Your task to perform on an android device: Go to privacy settings Image 0: 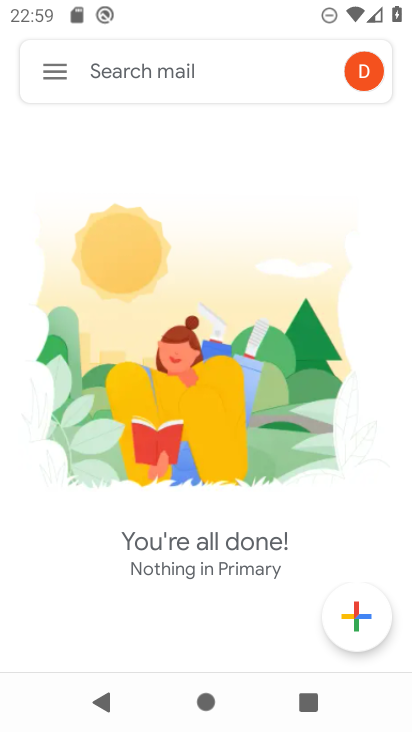
Step 0: press home button
Your task to perform on an android device: Go to privacy settings Image 1: 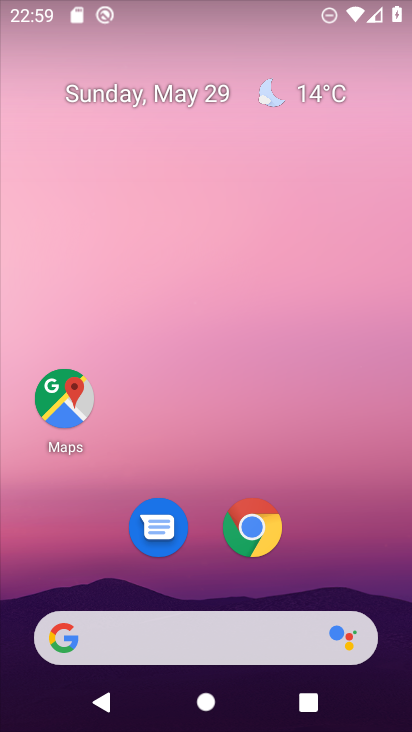
Step 1: drag from (214, 643) to (235, 68)
Your task to perform on an android device: Go to privacy settings Image 2: 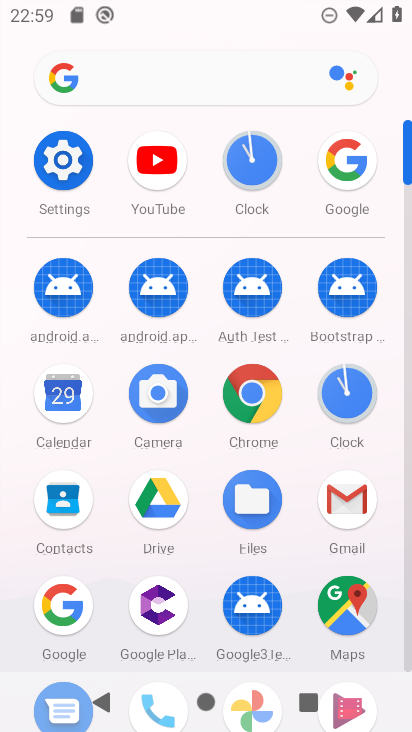
Step 2: click (45, 168)
Your task to perform on an android device: Go to privacy settings Image 3: 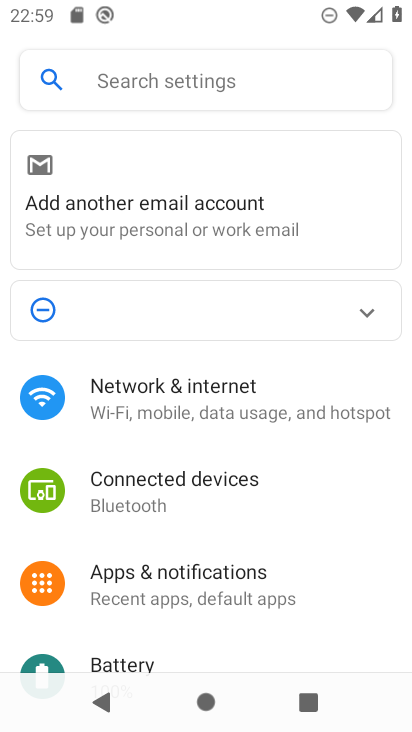
Step 3: drag from (186, 618) to (237, 153)
Your task to perform on an android device: Go to privacy settings Image 4: 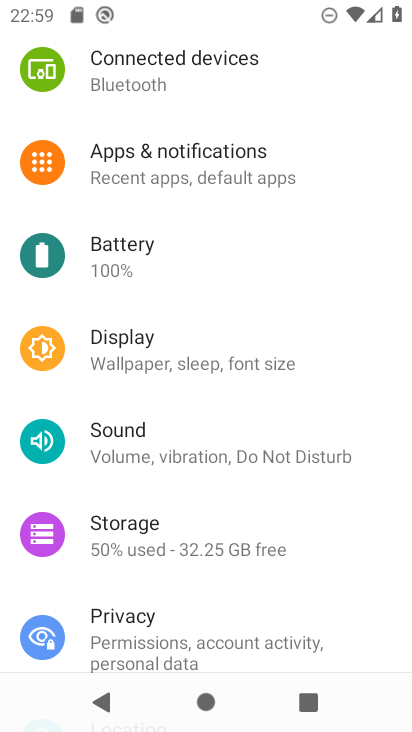
Step 4: click (121, 629)
Your task to perform on an android device: Go to privacy settings Image 5: 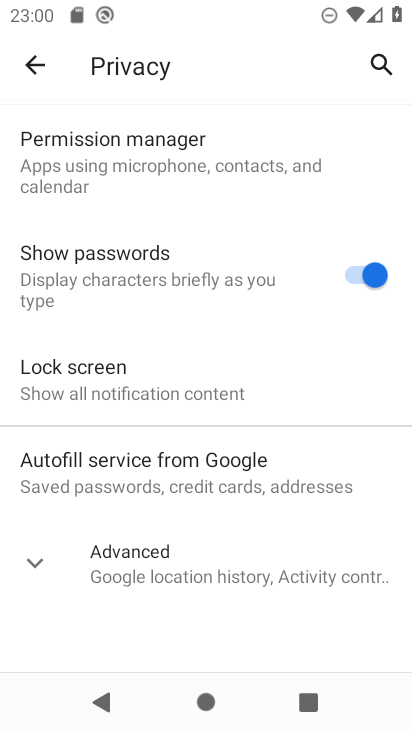
Step 5: task complete